Your task to perform on an android device: open a bookmark in the chrome app Image 0: 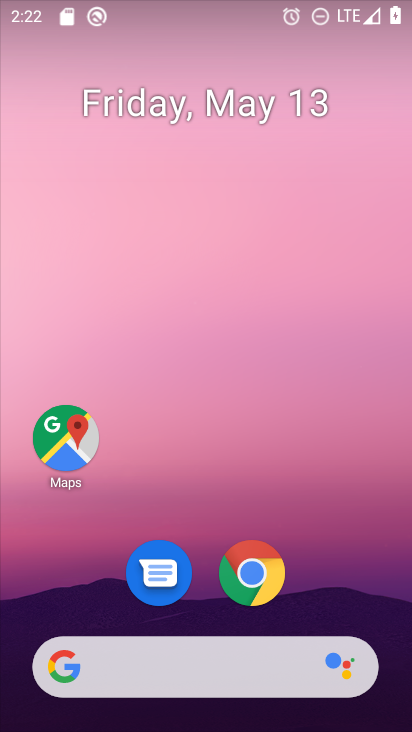
Step 0: click (241, 577)
Your task to perform on an android device: open a bookmark in the chrome app Image 1: 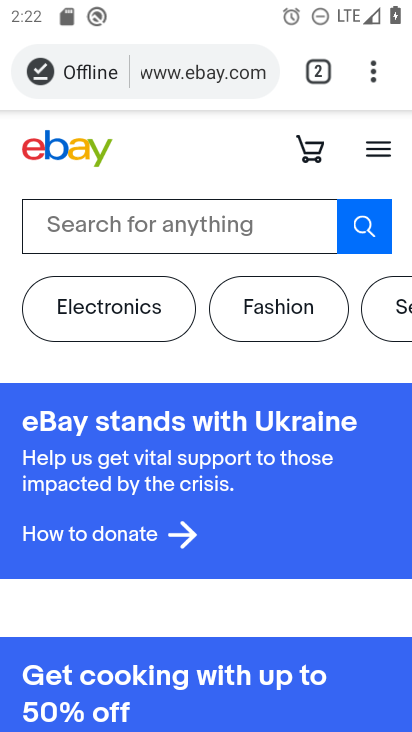
Step 1: click (374, 72)
Your task to perform on an android device: open a bookmark in the chrome app Image 2: 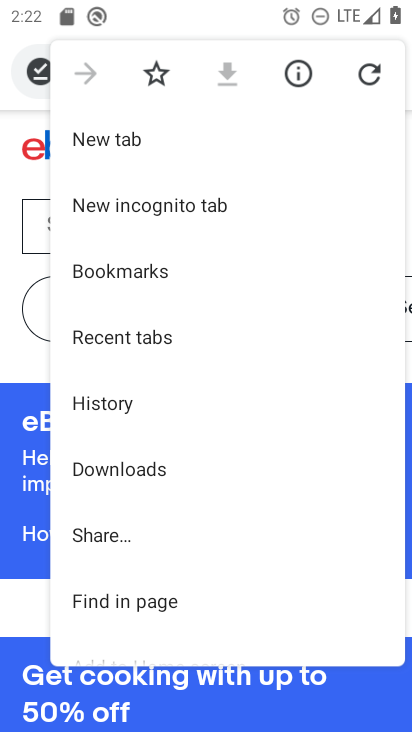
Step 2: click (129, 268)
Your task to perform on an android device: open a bookmark in the chrome app Image 3: 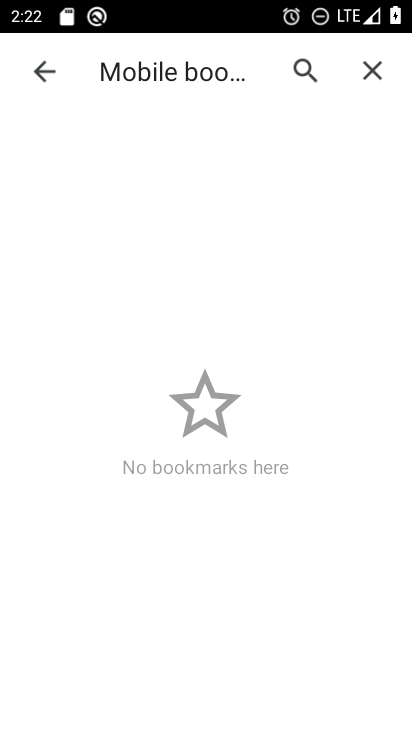
Step 3: task complete